Your task to perform on an android device: change notification settings in the gmail app Image 0: 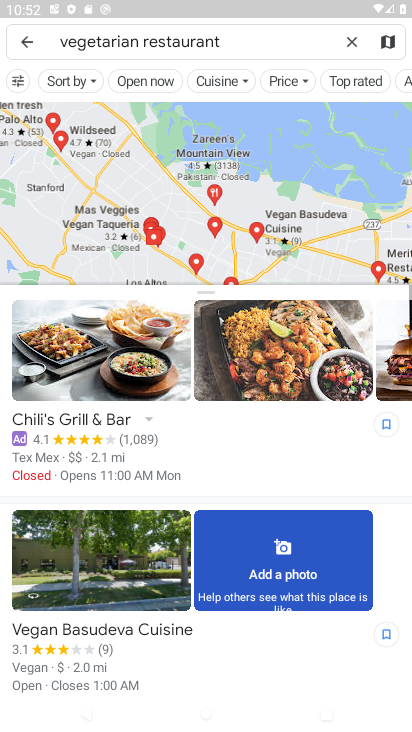
Step 0: press home button
Your task to perform on an android device: change notification settings in the gmail app Image 1: 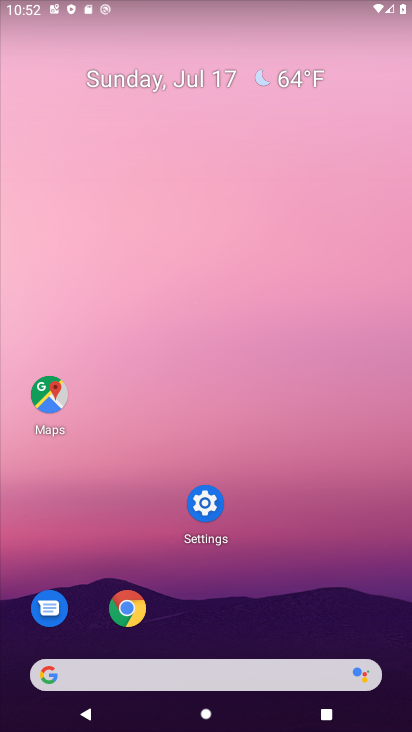
Step 1: drag from (404, 695) to (390, 178)
Your task to perform on an android device: change notification settings in the gmail app Image 2: 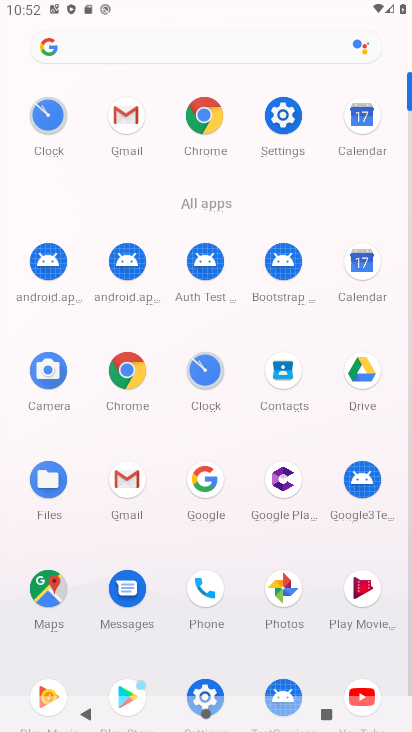
Step 2: click (126, 487)
Your task to perform on an android device: change notification settings in the gmail app Image 3: 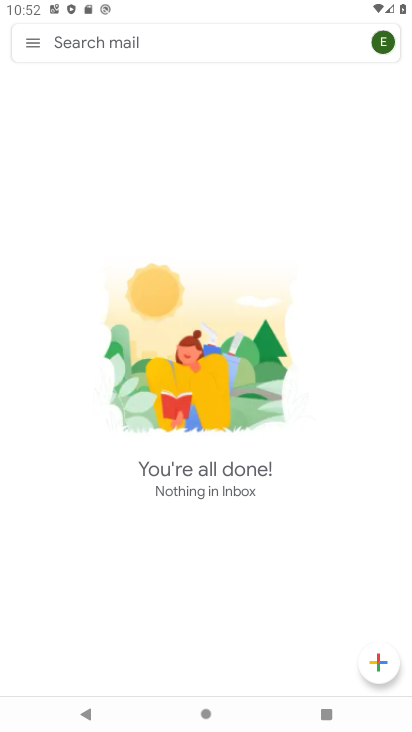
Step 3: click (39, 41)
Your task to perform on an android device: change notification settings in the gmail app Image 4: 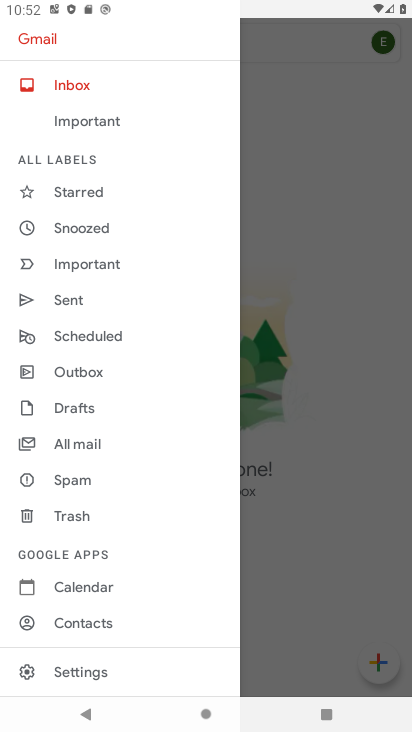
Step 4: click (67, 671)
Your task to perform on an android device: change notification settings in the gmail app Image 5: 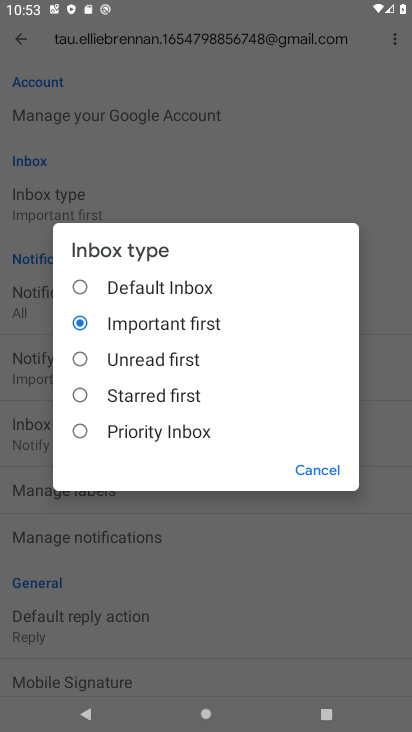
Step 5: click (304, 472)
Your task to perform on an android device: change notification settings in the gmail app Image 6: 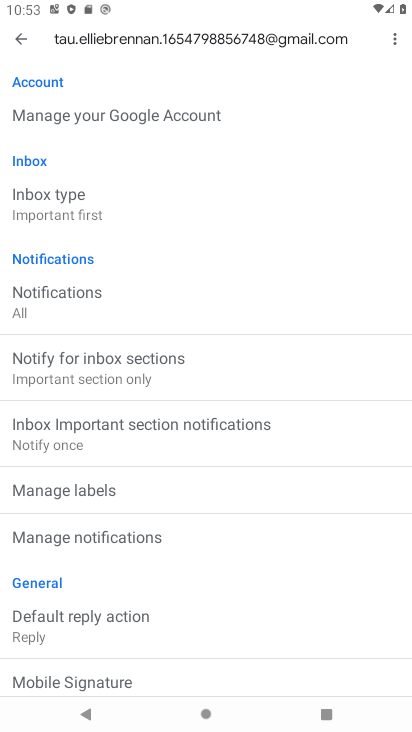
Step 6: click (81, 305)
Your task to perform on an android device: change notification settings in the gmail app Image 7: 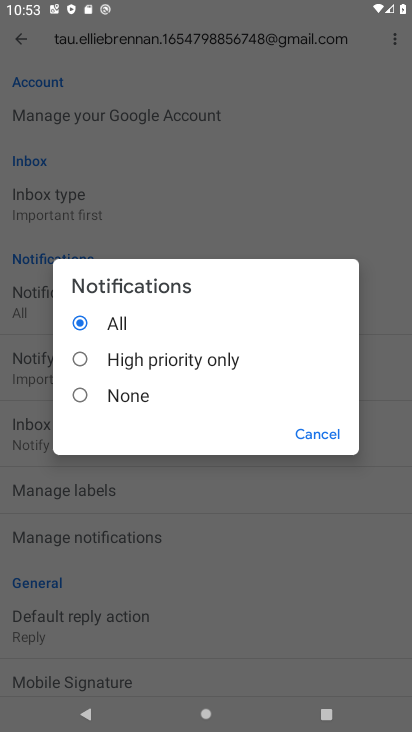
Step 7: click (103, 355)
Your task to perform on an android device: change notification settings in the gmail app Image 8: 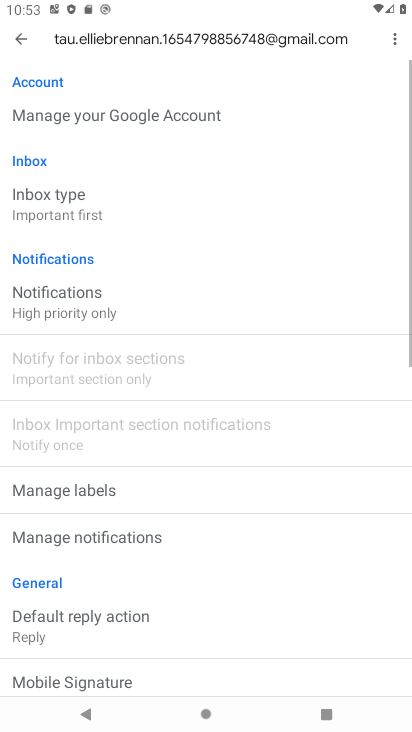
Step 8: task complete